Your task to perform on an android device: Open accessibility settings Image 0: 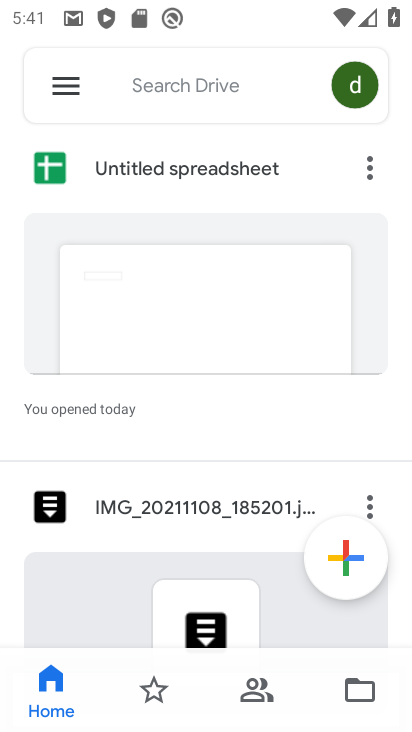
Step 0: press home button
Your task to perform on an android device: Open accessibility settings Image 1: 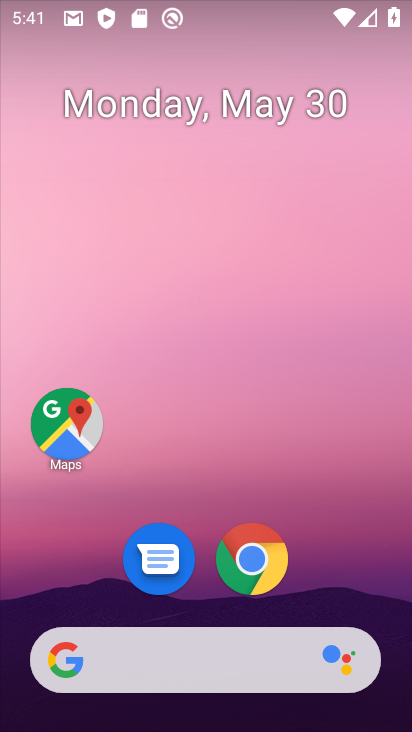
Step 1: drag from (350, 544) to (257, 170)
Your task to perform on an android device: Open accessibility settings Image 2: 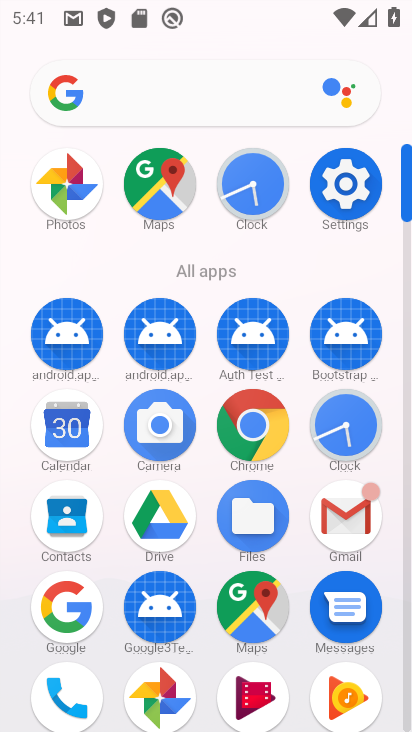
Step 2: click (343, 176)
Your task to perform on an android device: Open accessibility settings Image 3: 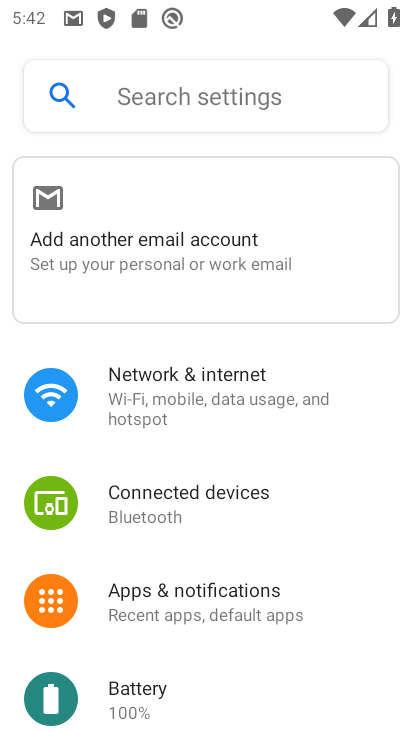
Step 3: drag from (216, 660) to (182, 316)
Your task to perform on an android device: Open accessibility settings Image 4: 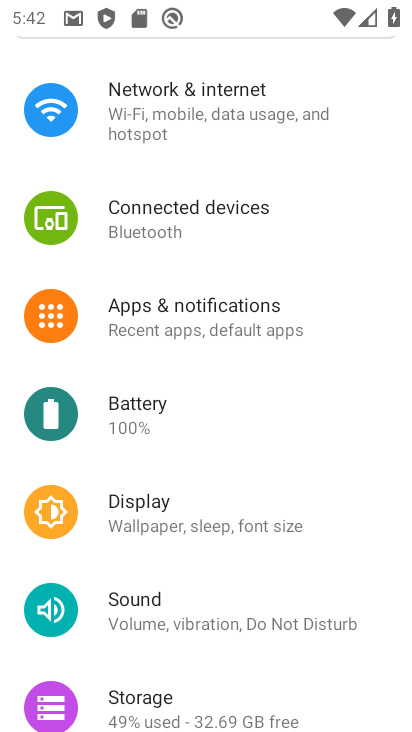
Step 4: drag from (248, 584) to (198, 110)
Your task to perform on an android device: Open accessibility settings Image 5: 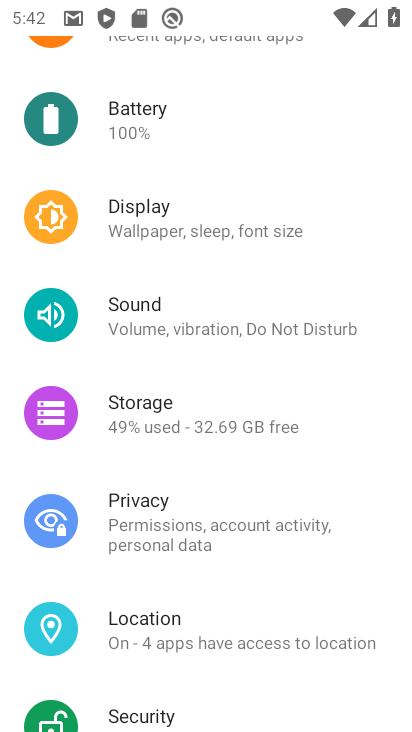
Step 5: drag from (216, 581) to (215, 230)
Your task to perform on an android device: Open accessibility settings Image 6: 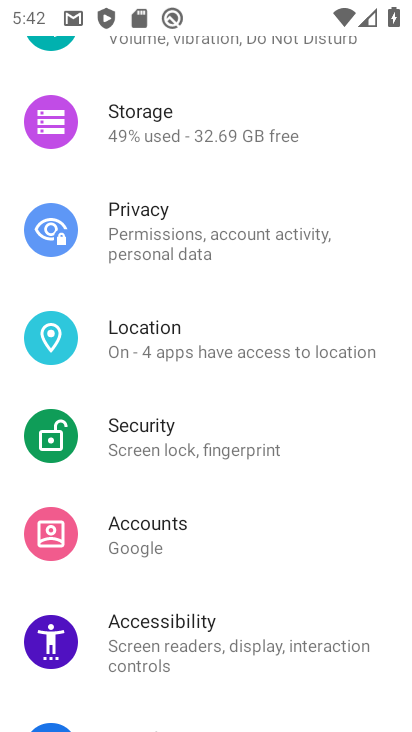
Step 6: click (156, 617)
Your task to perform on an android device: Open accessibility settings Image 7: 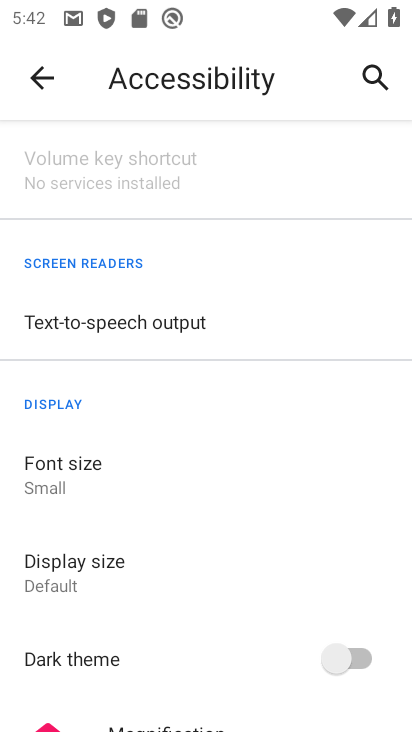
Step 7: task complete